Your task to perform on an android device: Go to Yahoo.com Image 0: 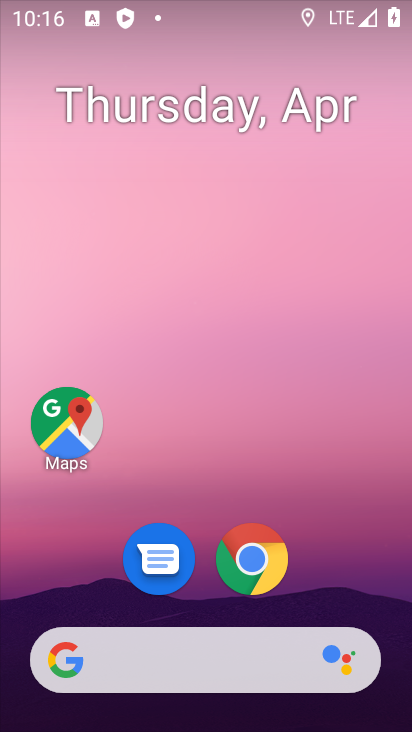
Step 0: click (264, 660)
Your task to perform on an android device: Go to Yahoo.com Image 1: 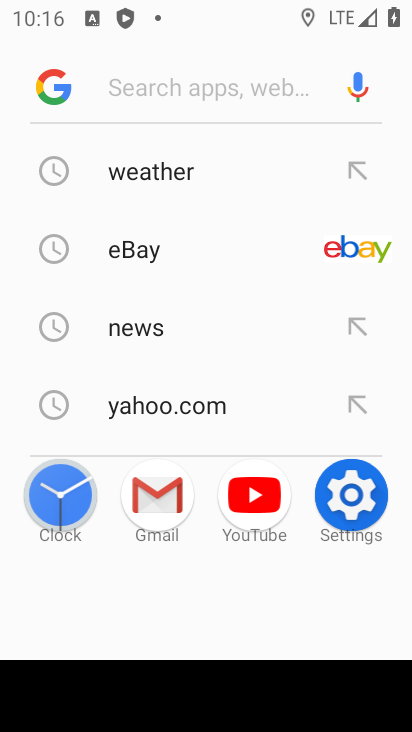
Step 1: click (300, 401)
Your task to perform on an android device: Go to Yahoo.com Image 2: 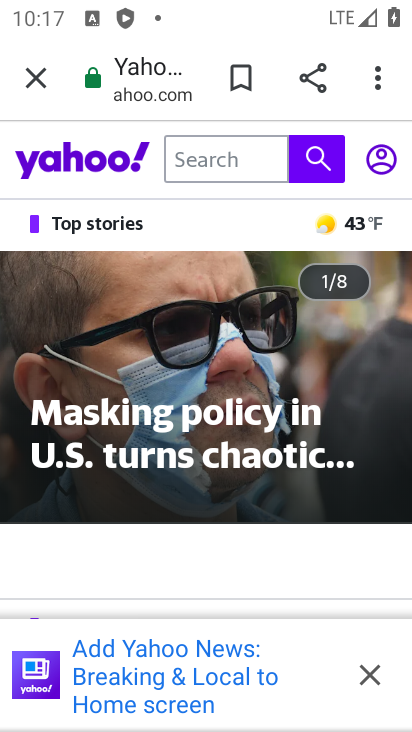
Step 2: task complete